Your task to perform on an android device: Go to ESPN.com Image 0: 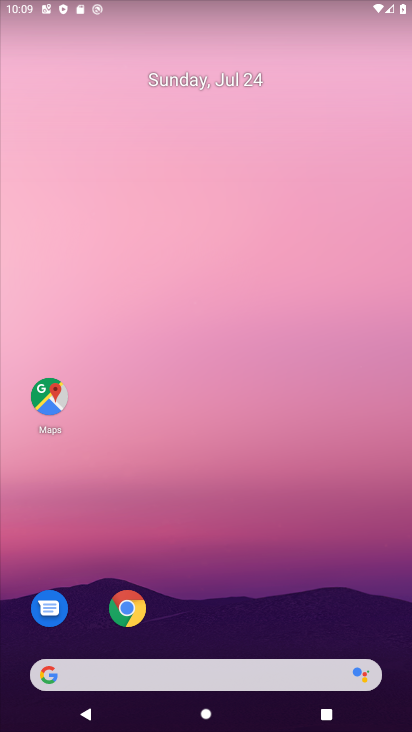
Step 0: click (127, 604)
Your task to perform on an android device: Go to ESPN.com Image 1: 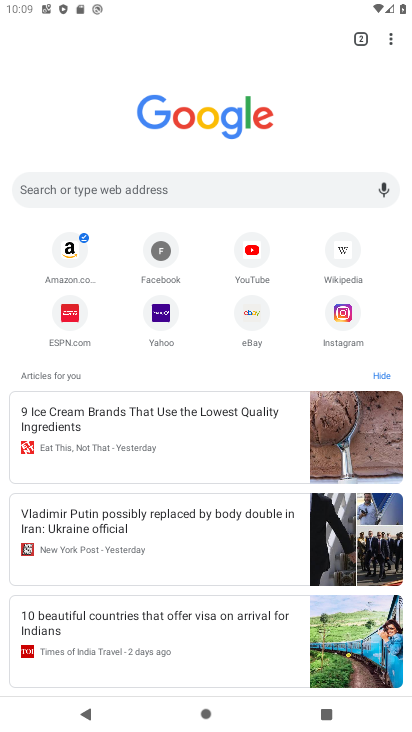
Step 1: click (73, 319)
Your task to perform on an android device: Go to ESPN.com Image 2: 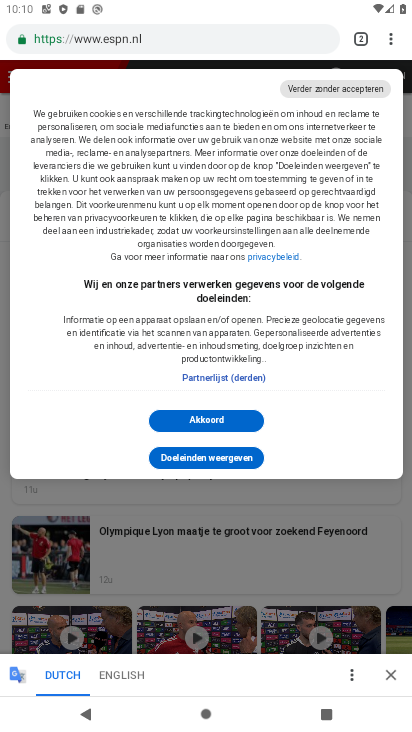
Step 2: task complete